Your task to perform on an android device: turn on wifi Image 0: 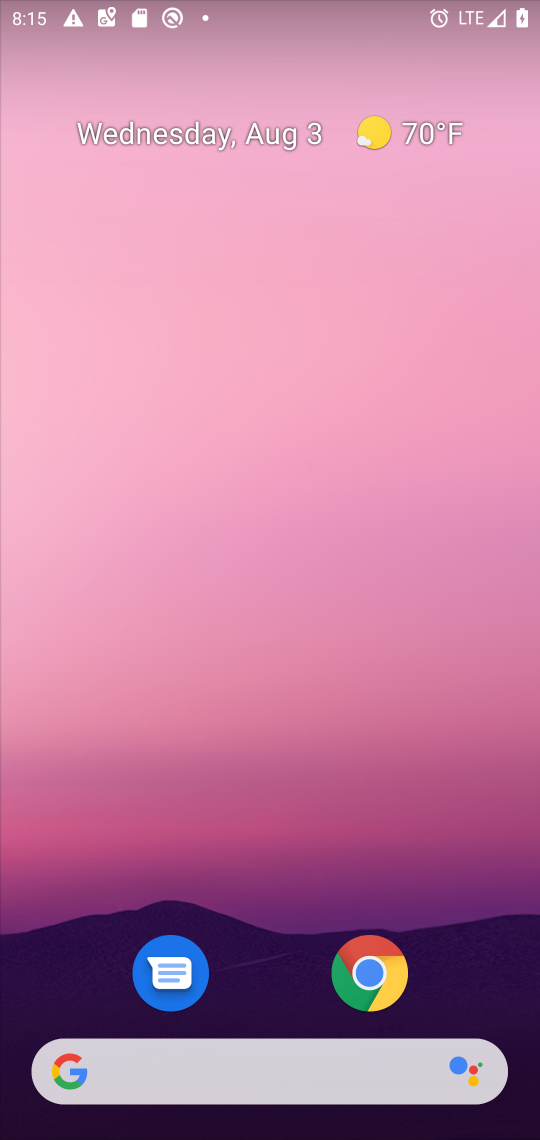
Step 0: press home button
Your task to perform on an android device: turn on wifi Image 1: 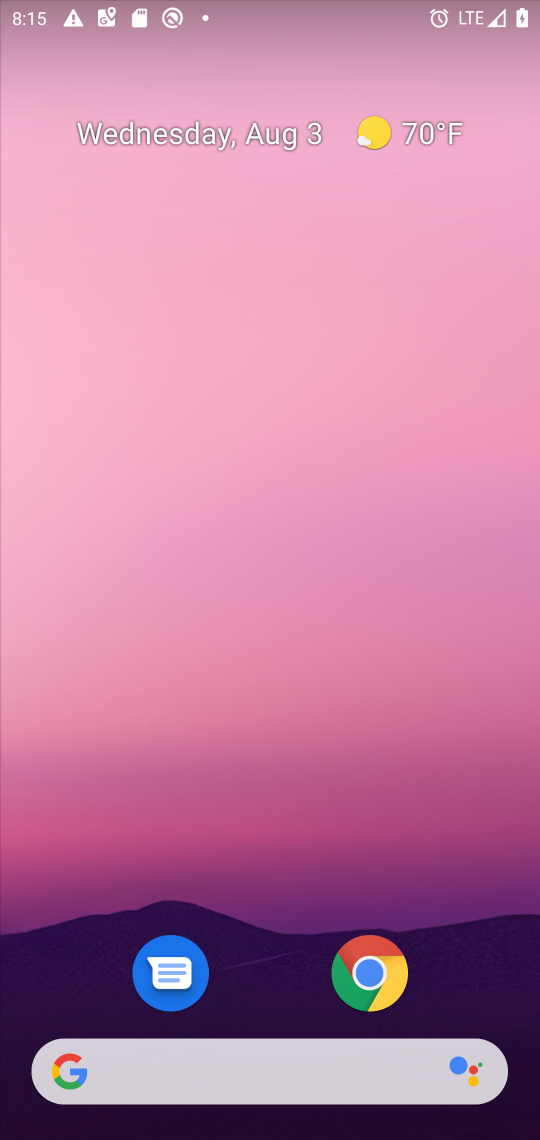
Step 1: drag from (239, 14) to (286, 637)
Your task to perform on an android device: turn on wifi Image 2: 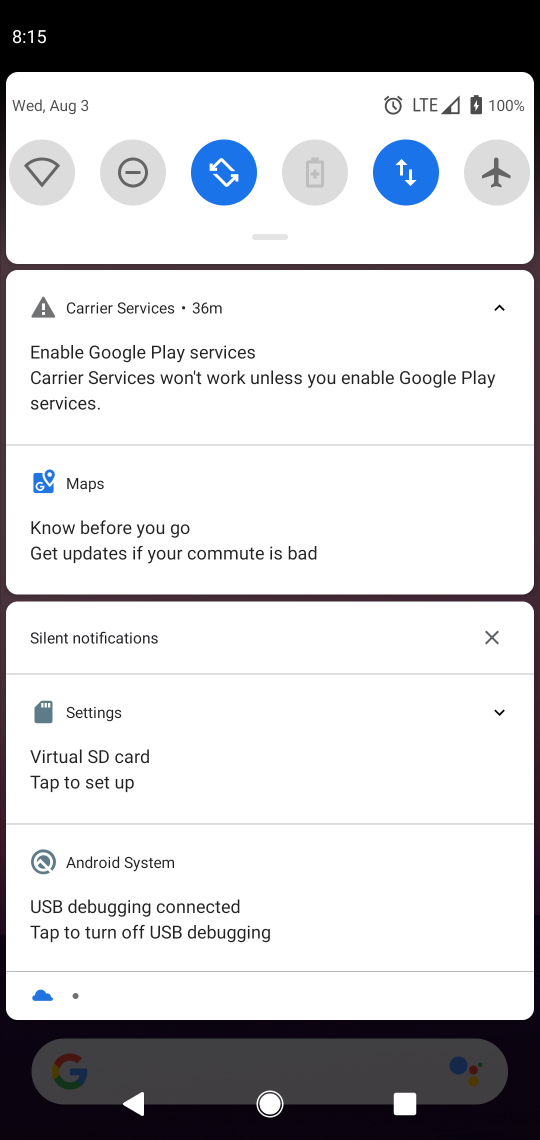
Step 2: click (40, 172)
Your task to perform on an android device: turn on wifi Image 3: 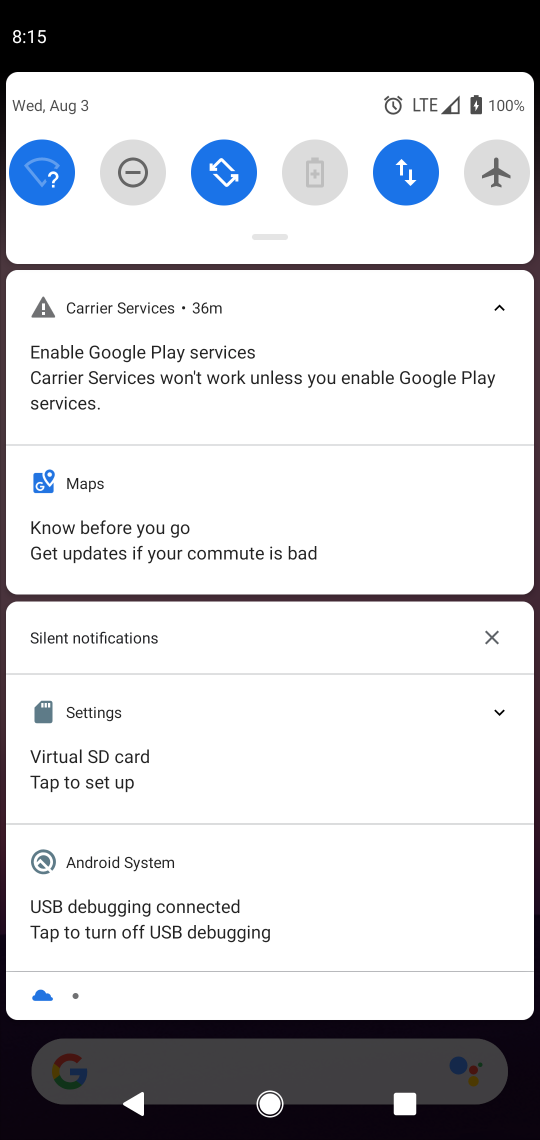
Step 3: task complete